Your task to perform on an android device: Show me popular games on the Play Store Image 0: 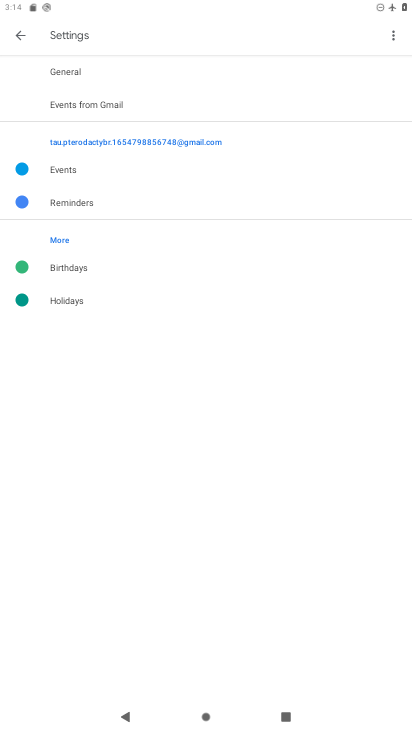
Step 0: press home button
Your task to perform on an android device: Show me popular games on the Play Store Image 1: 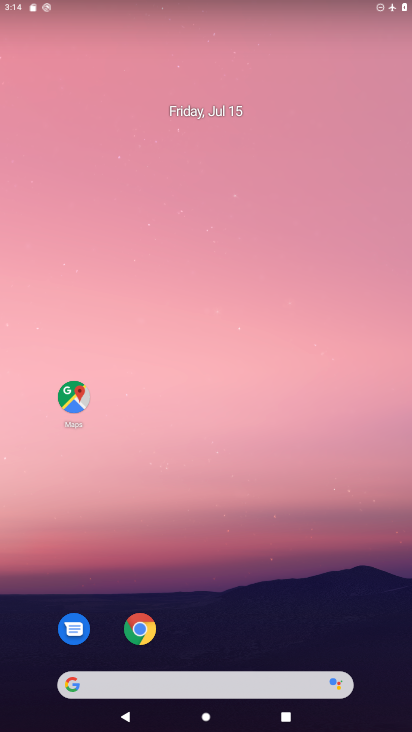
Step 1: drag from (270, 548) to (319, 2)
Your task to perform on an android device: Show me popular games on the Play Store Image 2: 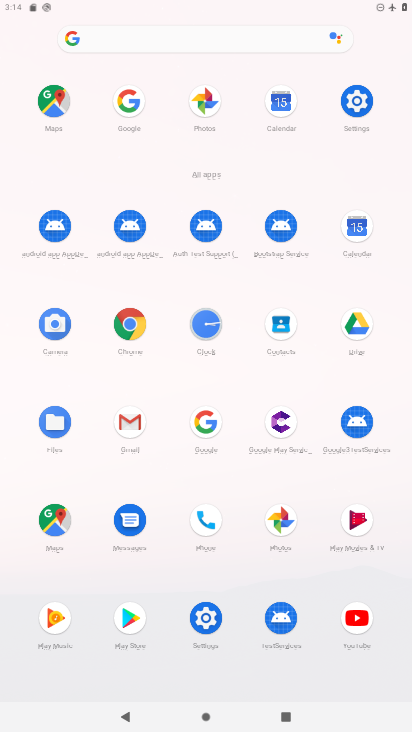
Step 2: drag from (333, 675) to (318, 212)
Your task to perform on an android device: Show me popular games on the Play Store Image 3: 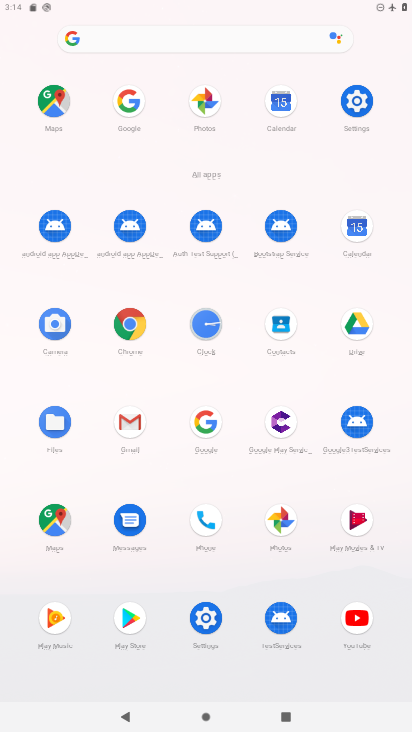
Step 3: click (121, 627)
Your task to perform on an android device: Show me popular games on the Play Store Image 4: 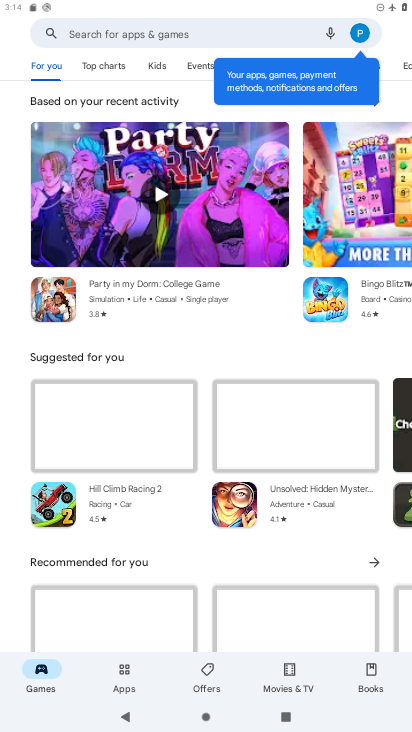
Step 4: click (148, 28)
Your task to perform on an android device: Show me popular games on the Play Store Image 5: 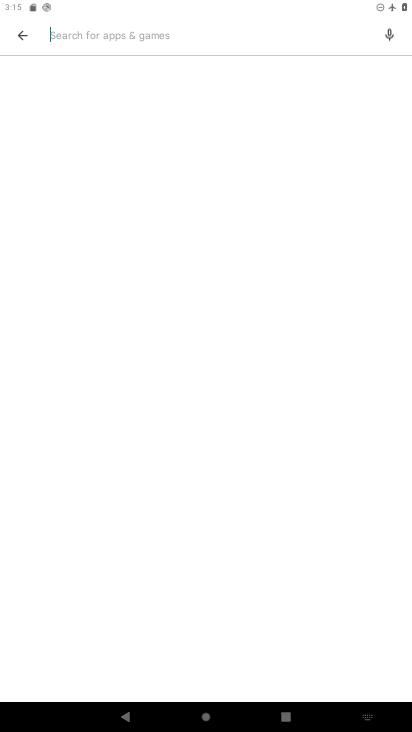
Step 5: type " popular games"
Your task to perform on an android device: Show me popular games on the Play Store Image 6: 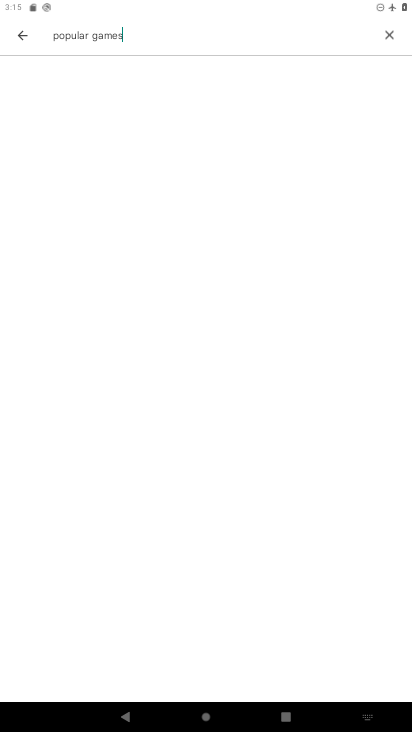
Step 6: press enter
Your task to perform on an android device: Show me popular games on the Play Store Image 7: 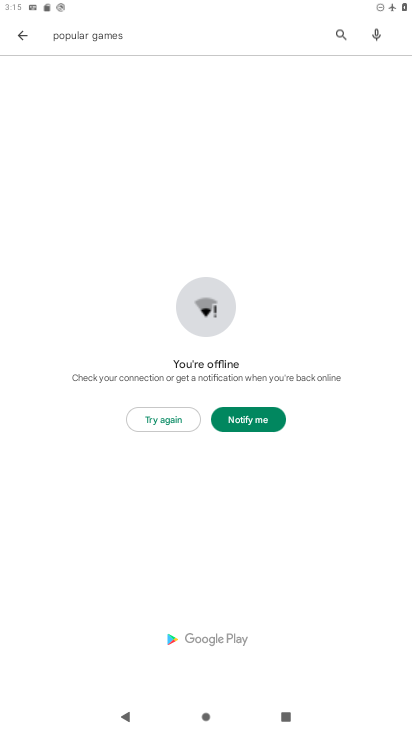
Step 7: click (170, 414)
Your task to perform on an android device: Show me popular games on the Play Store Image 8: 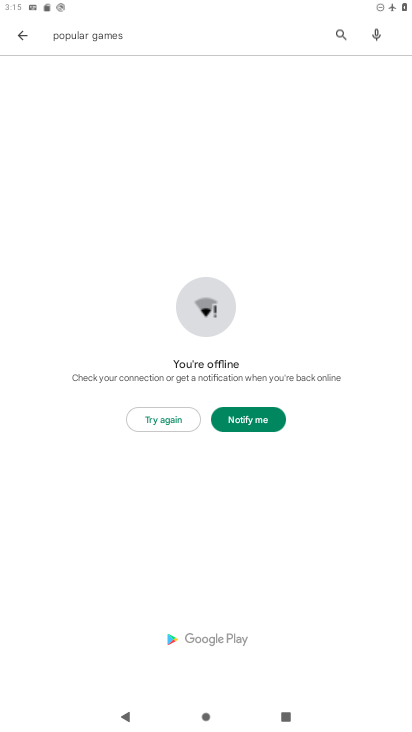
Step 8: click (153, 431)
Your task to perform on an android device: Show me popular games on the Play Store Image 9: 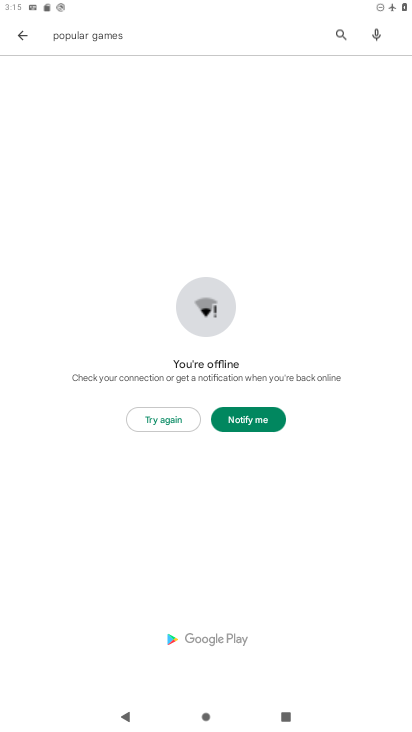
Step 9: click (146, 415)
Your task to perform on an android device: Show me popular games on the Play Store Image 10: 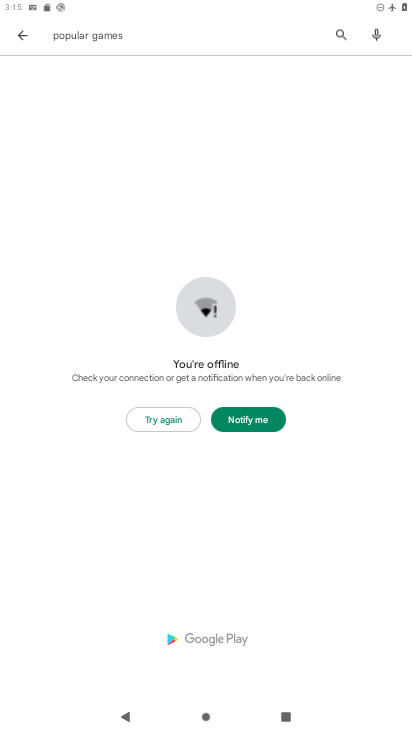
Step 10: task complete